Your task to perform on an android device: When is my next meeting? Image 0: 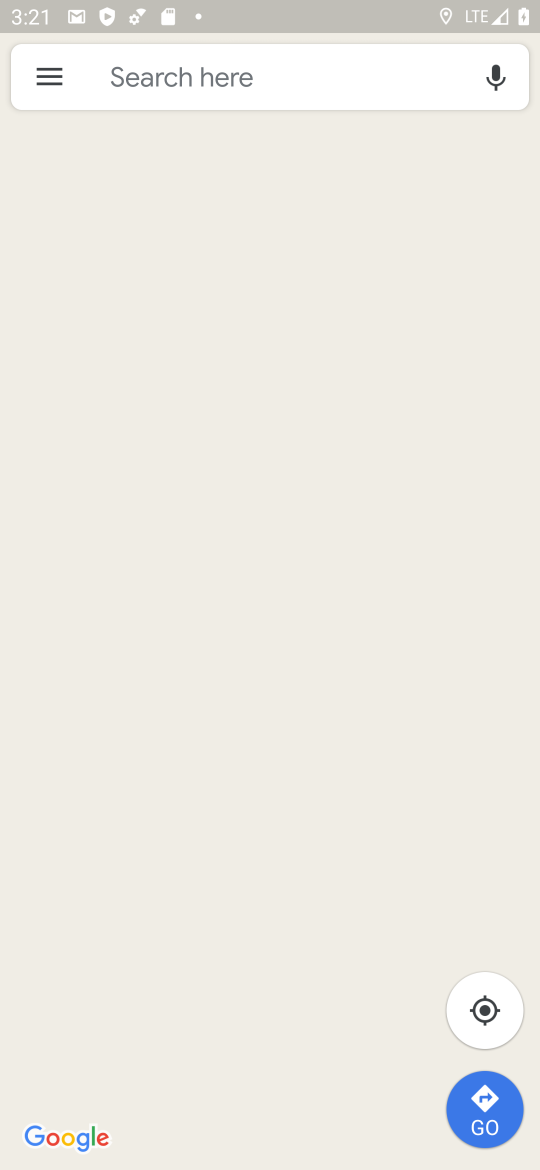
Step 0: press home button
Your task to perform on an android device: When is my next meeting? Image 1: 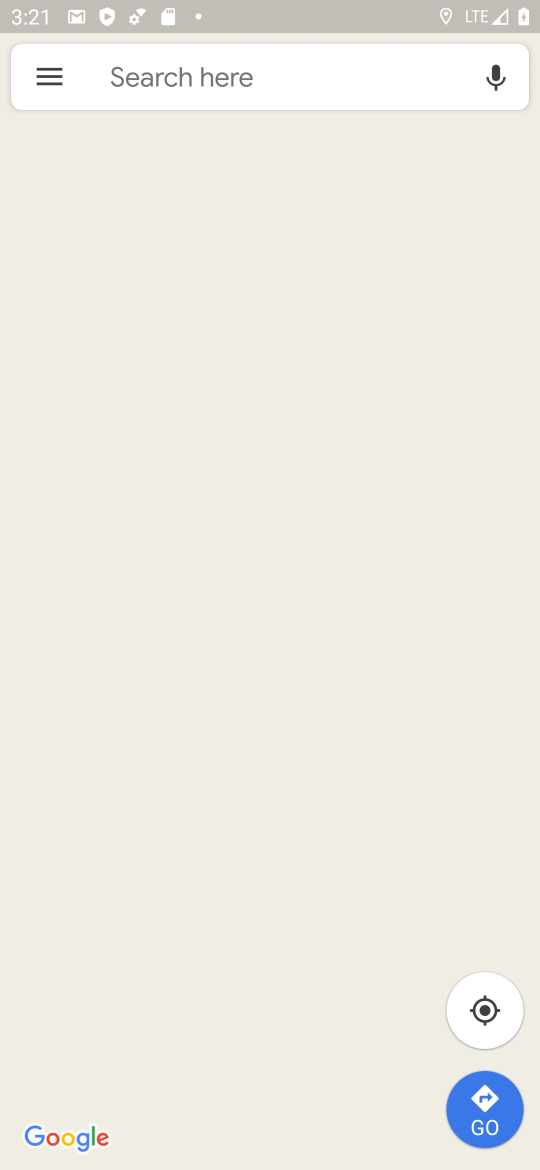
Step 1: press home button
Your task to perform on an android device: When is my next meeting? Image 2: 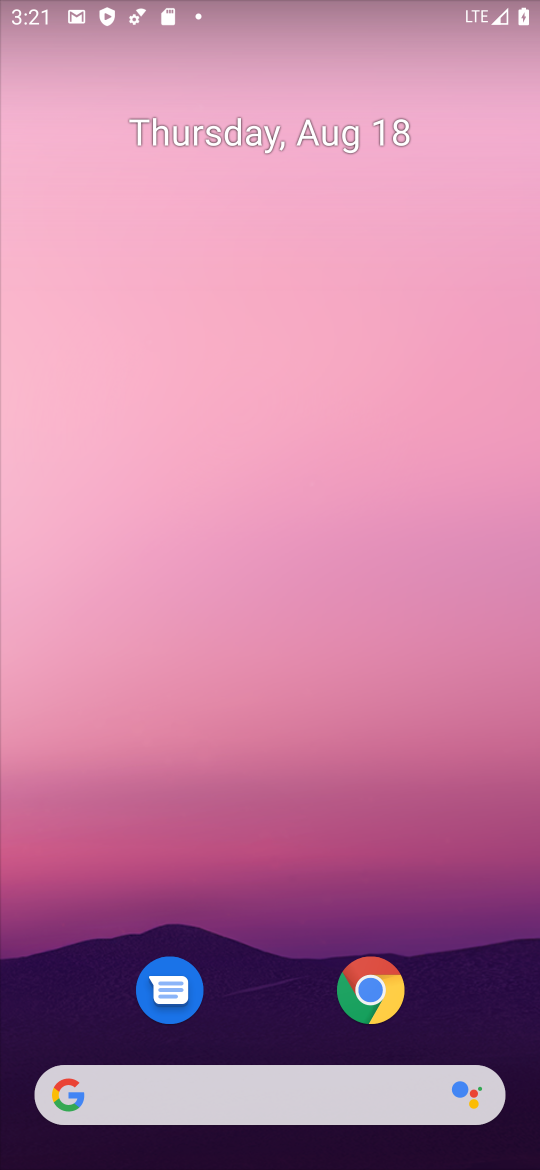
Step 2: drag from (263, 1002) to (429, 228)
Your task to perform on an android device: When is my next meeting? Image 3: 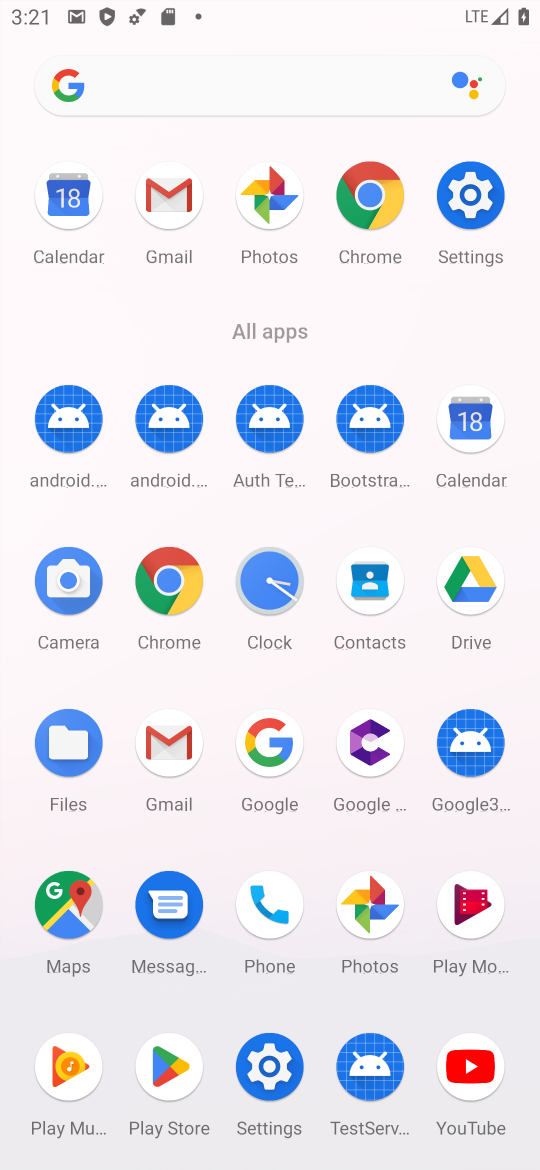
Step 3: click (464, 413)
Your task to perform on an android device: When is my next meeting? Image 4: 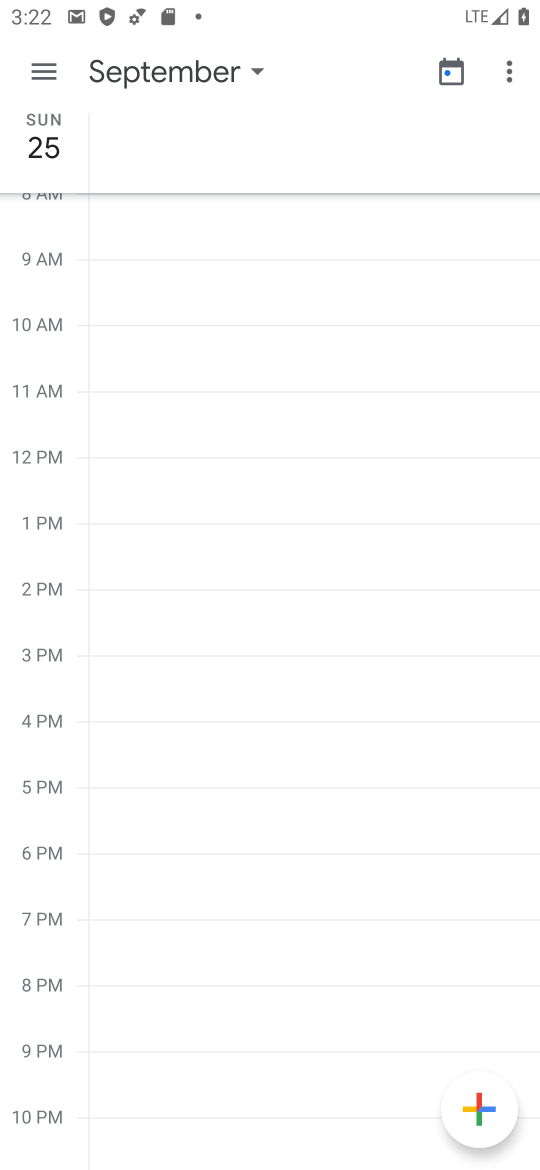
Step 4: click (187, 77)
Your task to perform on an android device: When is my next meeting? Image 5: 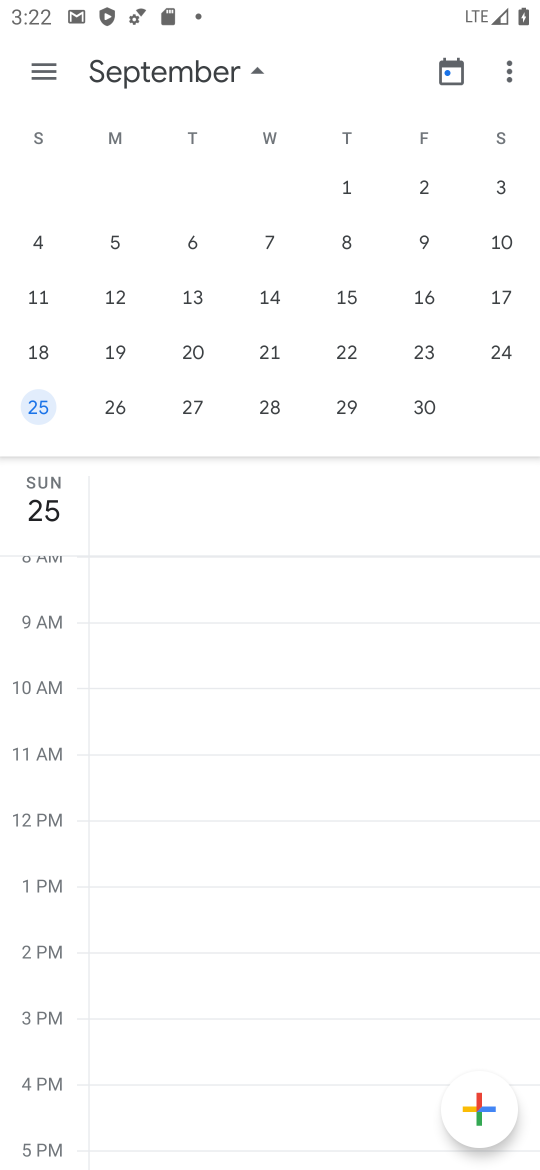
Step 5: drag from (118, 269) to (481, 271)
Your task to perform on an android device: When is my next meeting? Image 6: 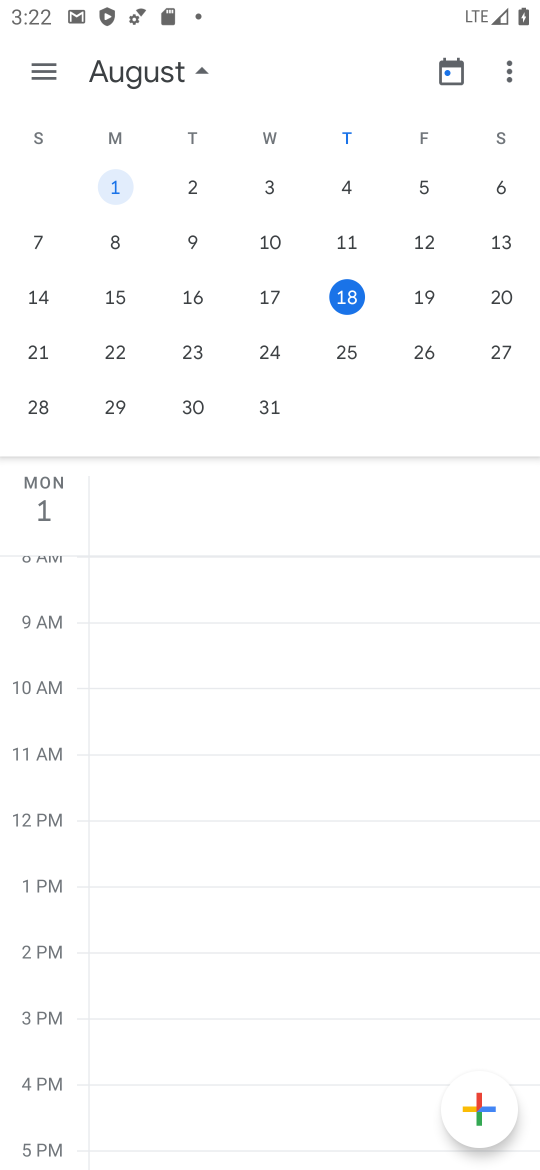
Step 6: click (325, 300)
Your task to perform on an android device: When is my next meeting? Image 7: 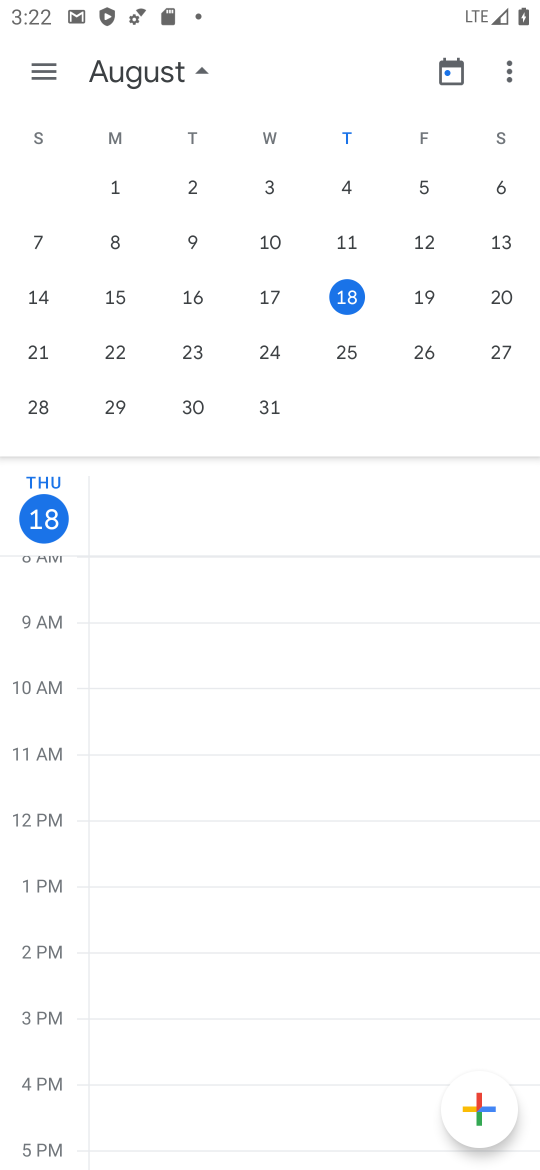
Step 7: click (53, 71)
Your task to perform on an android device: When is my next meeting? Image 8: 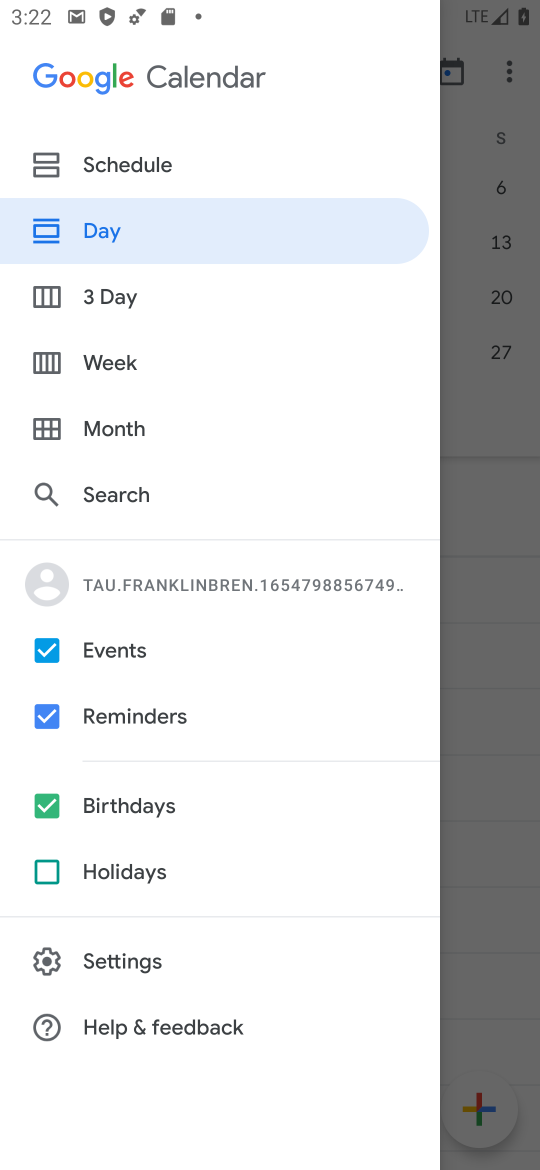
Step 8: click (140, 342)
Your task to perform on an android device: When is my next meeting? Image 9: 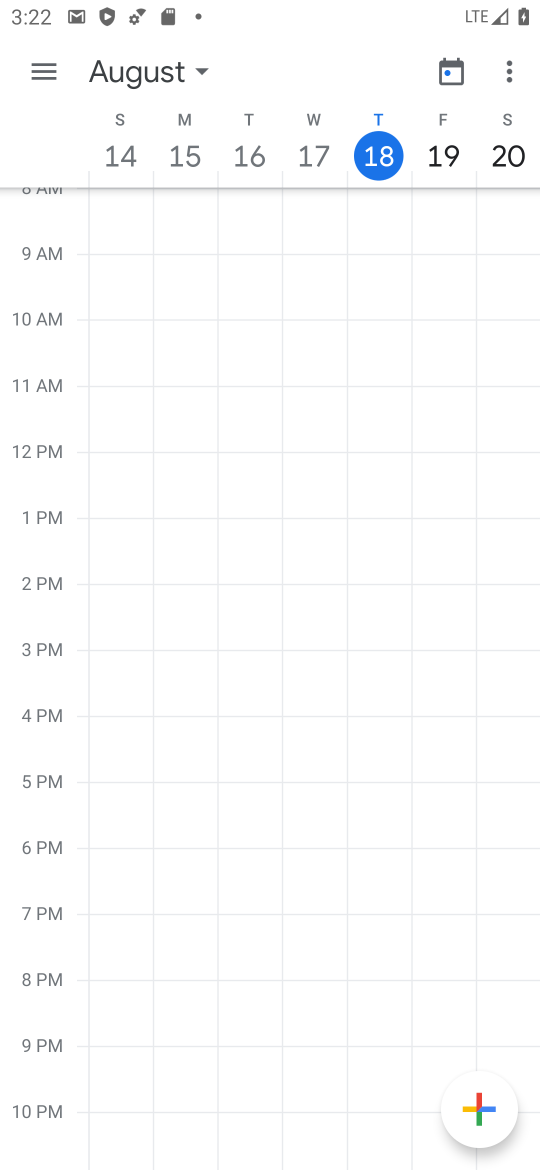
Step 9: task complete